Your task to perform on an android device: turn on notifications settings in the gmail app Image 0: 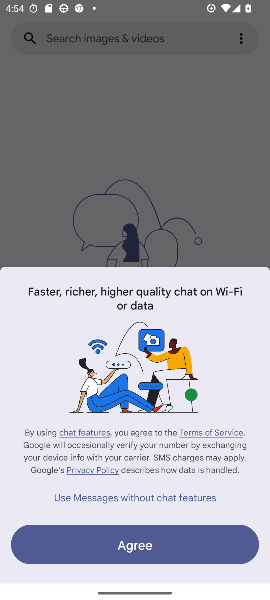
Step 0: press back button
Your task to perform on an android device: turn on notifications settings in the gmail app Image 1: 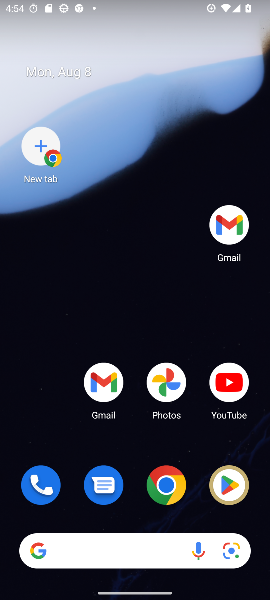
Step 1: drag from (105, 587) to (72, 183)
Your task to perform on an android device: turn on notifications settings in the gmail app Image 2: 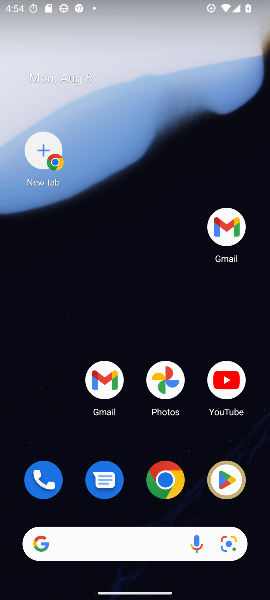
Step 2: drag from (164, 476) to (136, 256)
Your task to perform on an android device: turn on notifications settings in the gmail app Image 3: 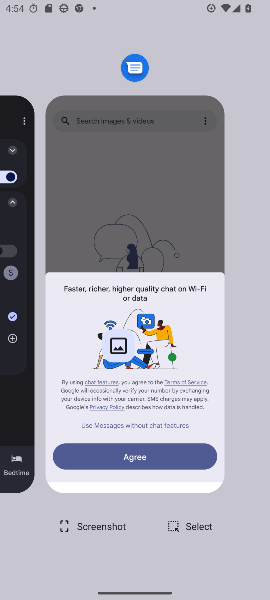
Step 3: press back button
Your task to perform on an android device: turn on notifications settings in the gmail app Image 4: 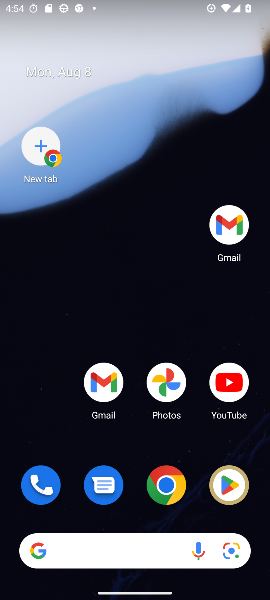
Step 4: drag from (136, 540) to (91, 196)
Your task to perform on an android device: turn on notifications settings in the gmail app Image 5: 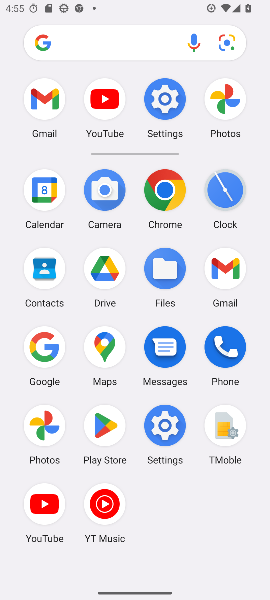
Step 5: click (44, 111)
Your task to perform on an android device: turn on notifications settings in the gmail app Image 6: 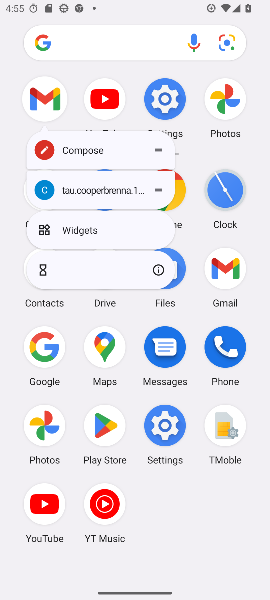
Step 6: click (44, 111)
Your task to perform on an android device: turn on notifications settings in the gmail app Image 7: 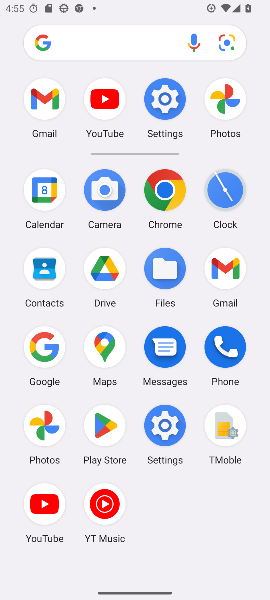
Step 7: click (44, 111)
Your task to perform on an android device: turn on notifications settings in the gmail app Image 8: 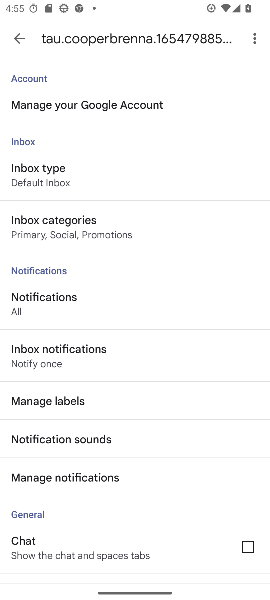
Step 8: click (42, 296)
Your task to perform on an android device: turn on notifications settings in the gmail app Image 9: 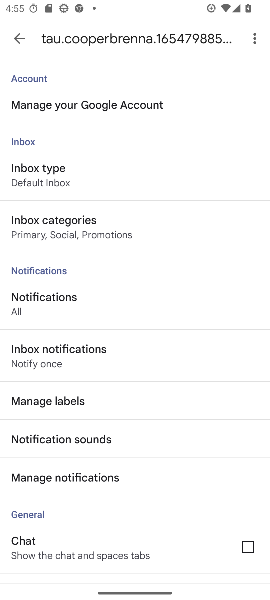
Step 9: click (42, 296)
Your task to perform on an android device: turn on notifications settings in the gmail app Image 10: 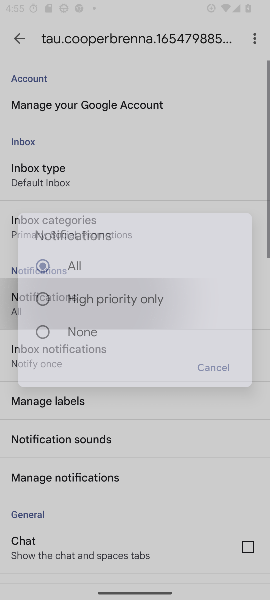
Step 10: click (42, 296)
Your task to perform on an android device: turn on notifications settings in the gmail app Image 11: 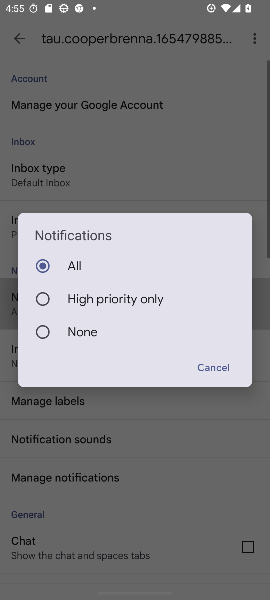
Step 11: click (42, 296)
Your task to perform on an android device: turn on notifications settings in the gmail app Image 12: 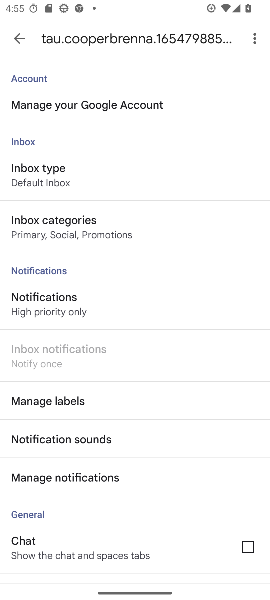
Step 12: task complete